Your task to perform on an android device: Search for pizza restaurants on Maps Image 0: 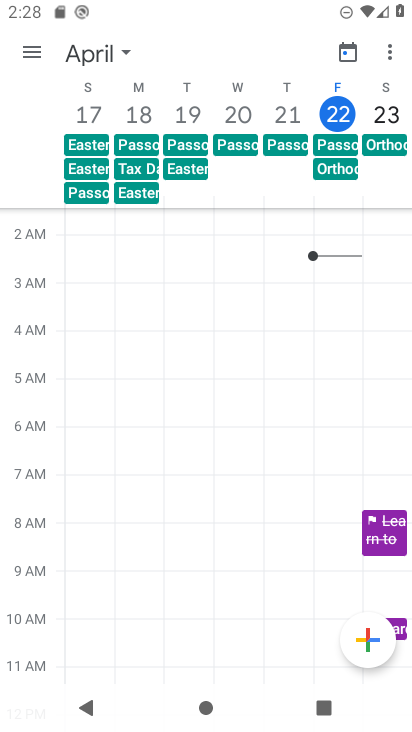
Step 0: press home button
Your task to perform on an android device: Search for pizza restaurants on Maps Image 1: 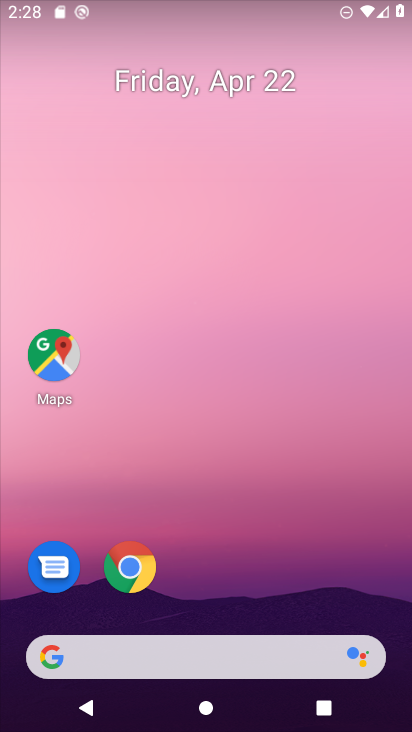
Step 1: click (63, 350)
Your task to perform on an android device: Search for pizza restaurants on Maps Image 2: 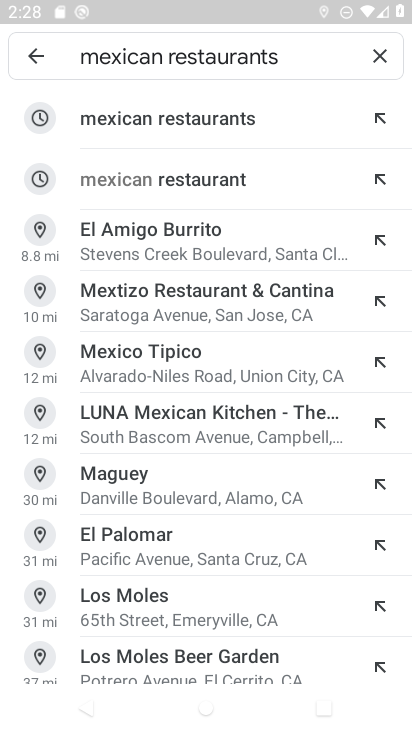
Step 2: click (377, 59)
Your task to perform on an android device: Search for pizza restaurants on Maps Image 3: 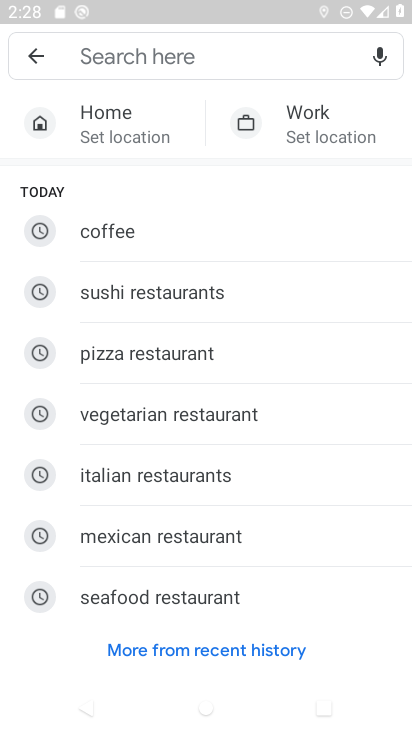
Step 3: click (181, 54)
Your task to perform on an android device: Search for pizza restaurants on Maps Image 4: 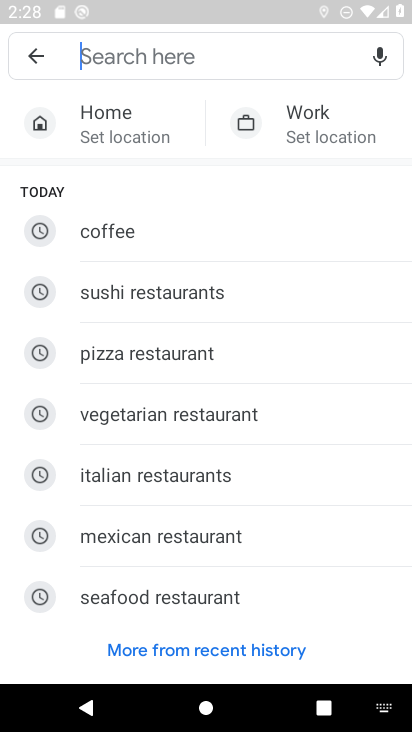
Step 4: type "pizza restaurants"
Your task to perform on an android device: Search for pizza restaurants on Maps Image 5: 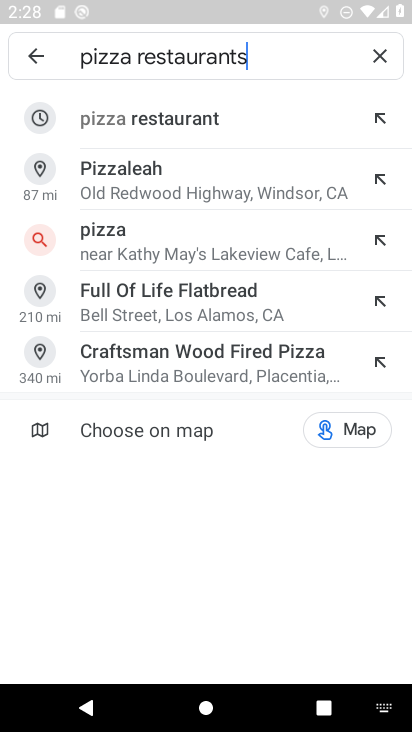
Step 5: task complete